Your task to perform on an android device: Search for seafood restaurants on Google Maps Image 0: 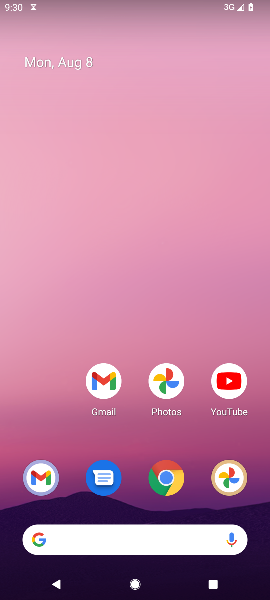
Step 0: drag from (116, 539) to (193, 145)
Your task to perform on an android device: Search for seafood restaurants on Google Maps Image 1: 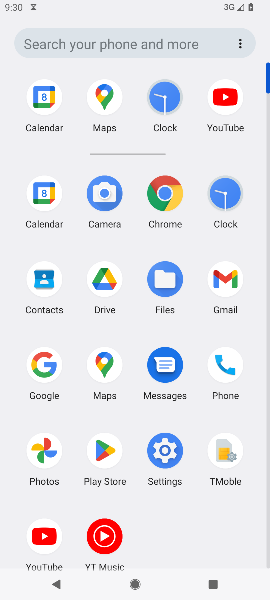
Step 1: click (110, 368)
Your task to perform on an android device: Search for seafood restaurants on Google Maps Image 2: 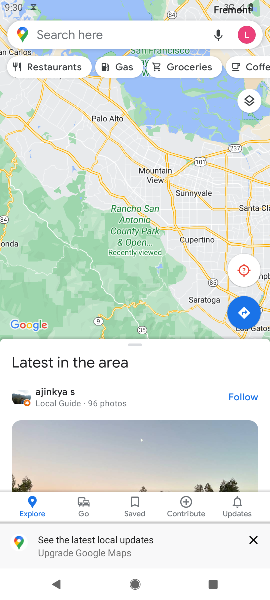
Step 2: click (103, 39)
Your task to perform on an android device: Search for seafood restaurants on Google Maps Image 3: 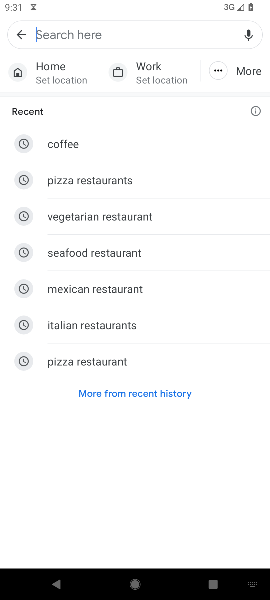
Step 3: click (97, 252)
Your task to perform on an android device: Search for seafood restaurants on Google Maps Image 4: 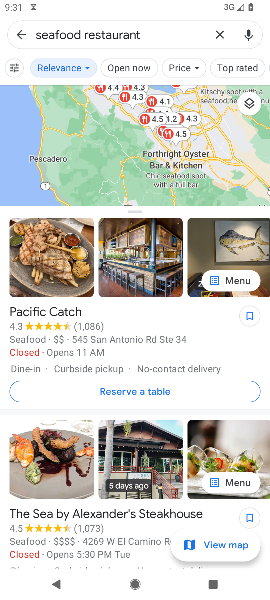
Step 4: task complete